Your task to perform on an android device: find photos in the google photos app Image 0: 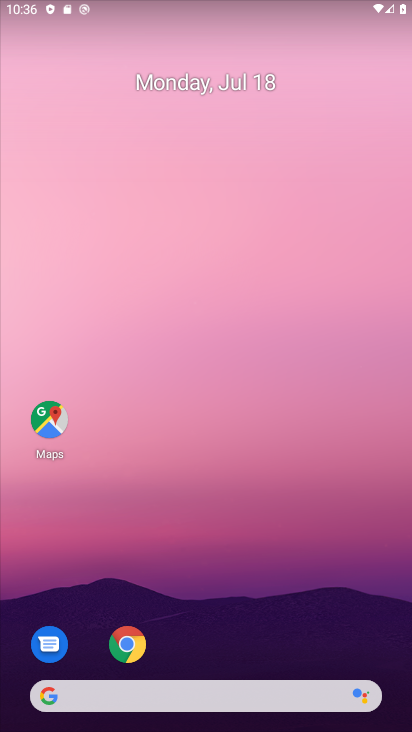
Step 0: drag from (196, 657) to (197, 175)
Your task to perform on an android device: find photos in the google photos app Image 1: 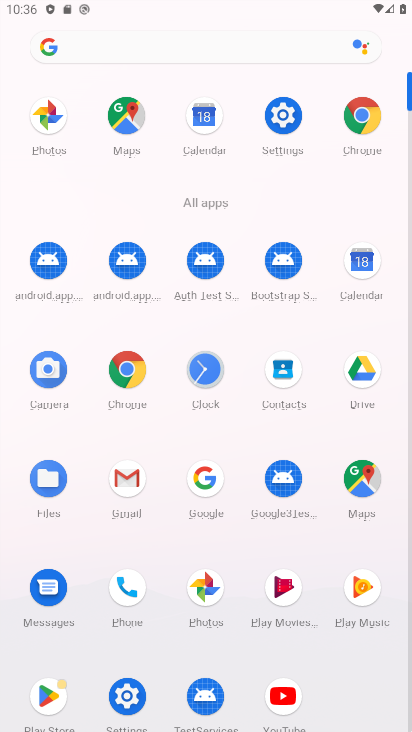
Step 1: click (206, 588)
Your task to perform on an android device: find photos in the google photos app Image 2: 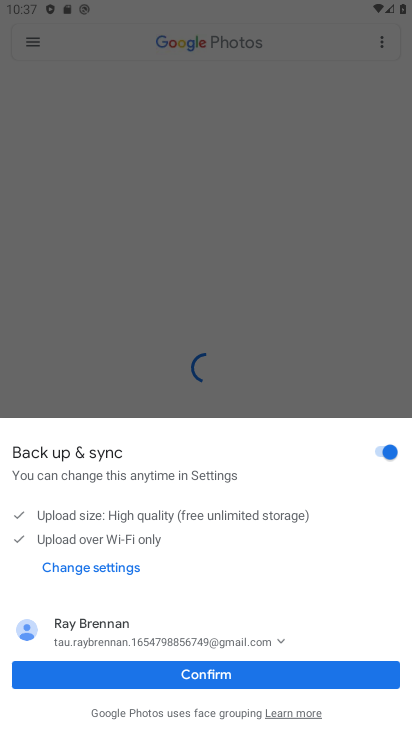
Step 2: click (259, 680)
Your task to perform on an android device: find photos in the google photos app Image 3: 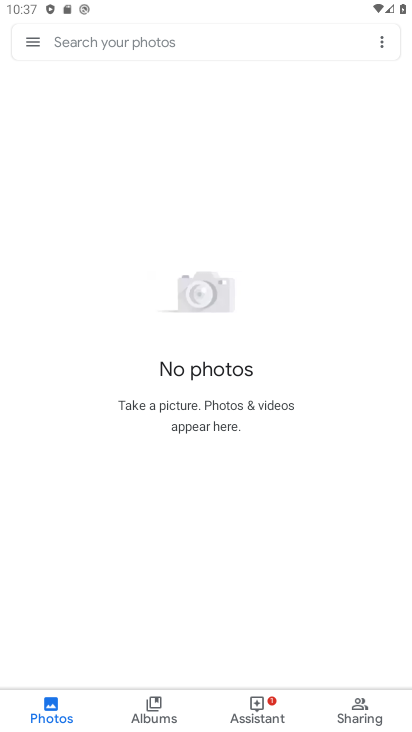
Step 3: task complete